Your task to perform on an android device: When is my next meeting? Image 0: 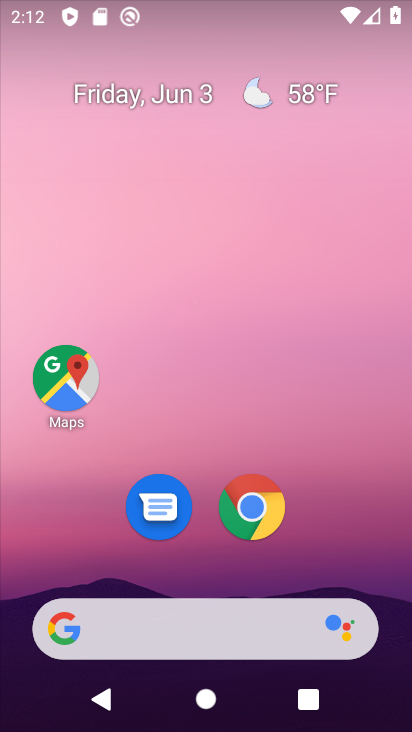
Step 0: drag from (196, 581) to (209, 135)
Your task to perform on an android device: When is my next meeting? Image 1: 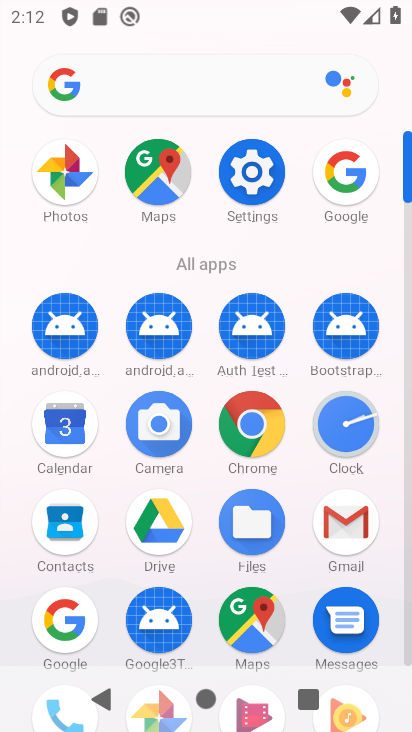
Step 1: click (59, 431)
Your task to perform on an android device: When is my next meeting? Image 2: 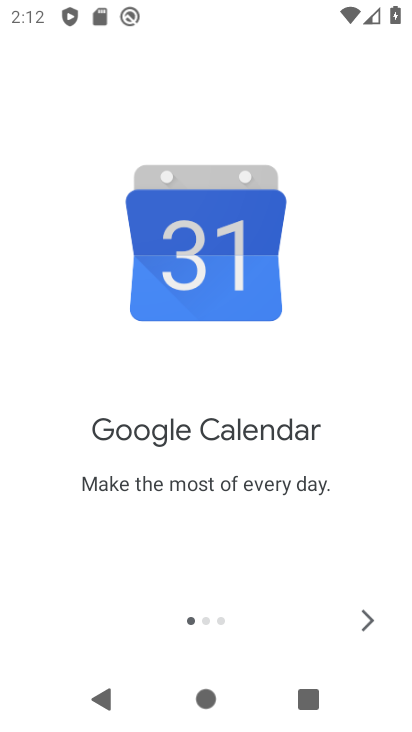
Step 2: click (362, 612)
Your task to perform on an android device: When is my next meeting? Image 3: 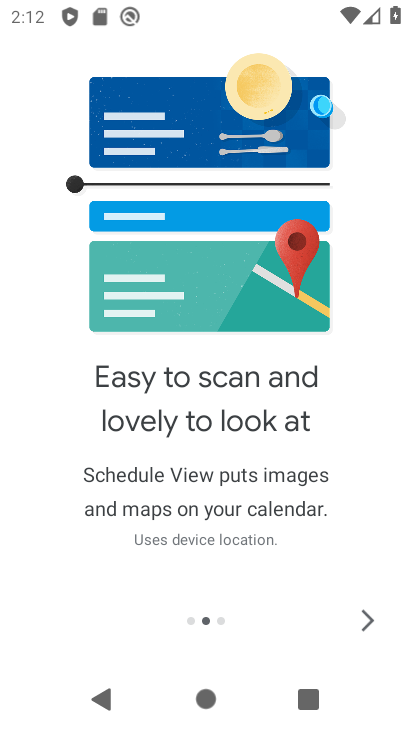
Step 3: click (362, 612)
Your task to perform on an android device: When is my next meeting? Image 4: 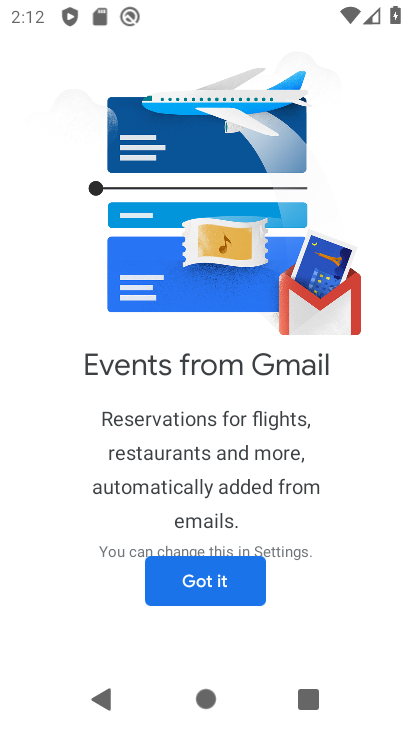
Step 4: click (204, 583)
Your task to perform on an android device: When is my next meeting? Image 5: 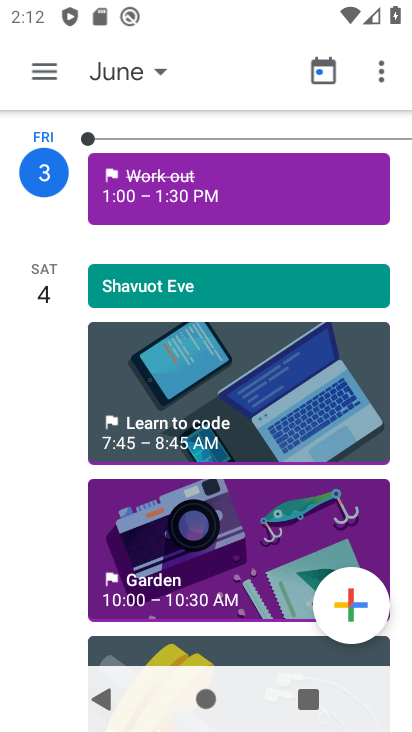
Step 5: click (135, 80)
Your task to perform on an android device: When is my next meeting? Image 6: 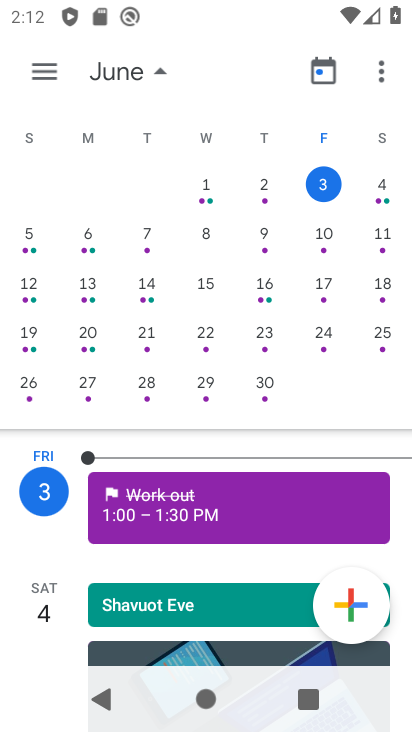
Step 6: click (379, 185)
Your task to perform on an android device: When is my next meeting? Image 7: 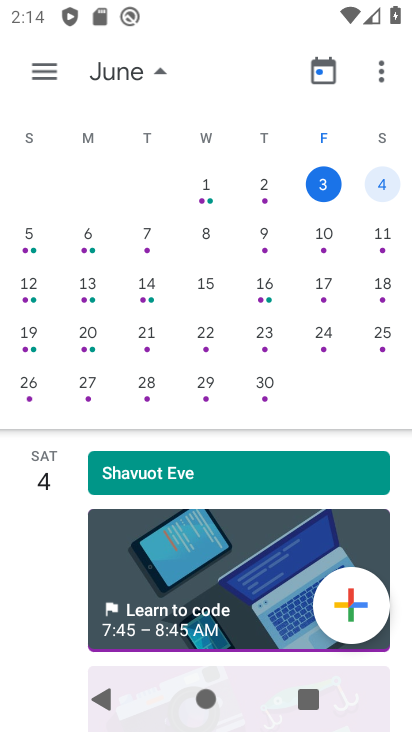
Step 7: task complete